Your task to perform on an android device: Open CNN.com Image 0: 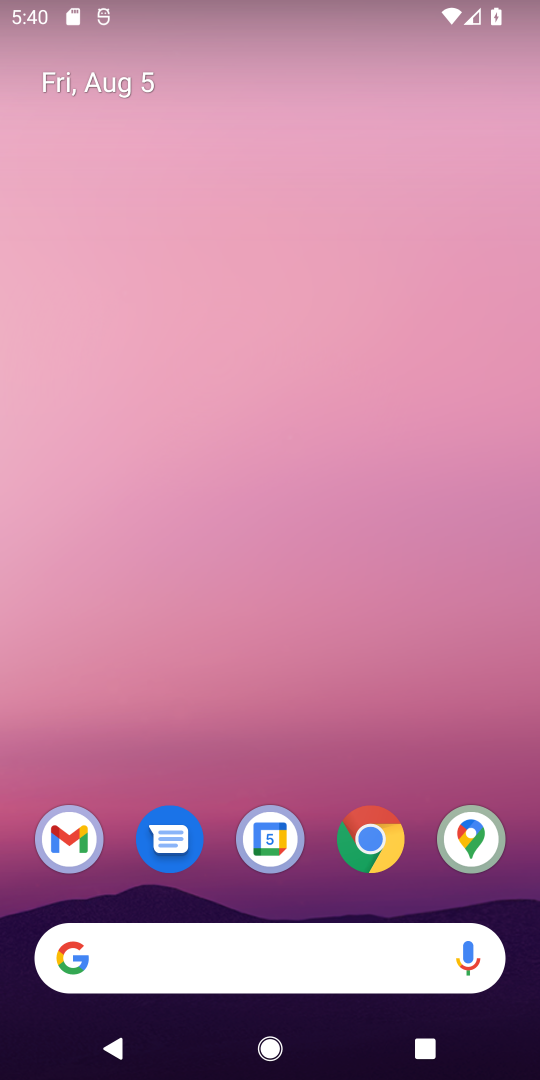
Step 0: click (350, 815)
Your task to perform on an android device: Open CNN.com Image 1: 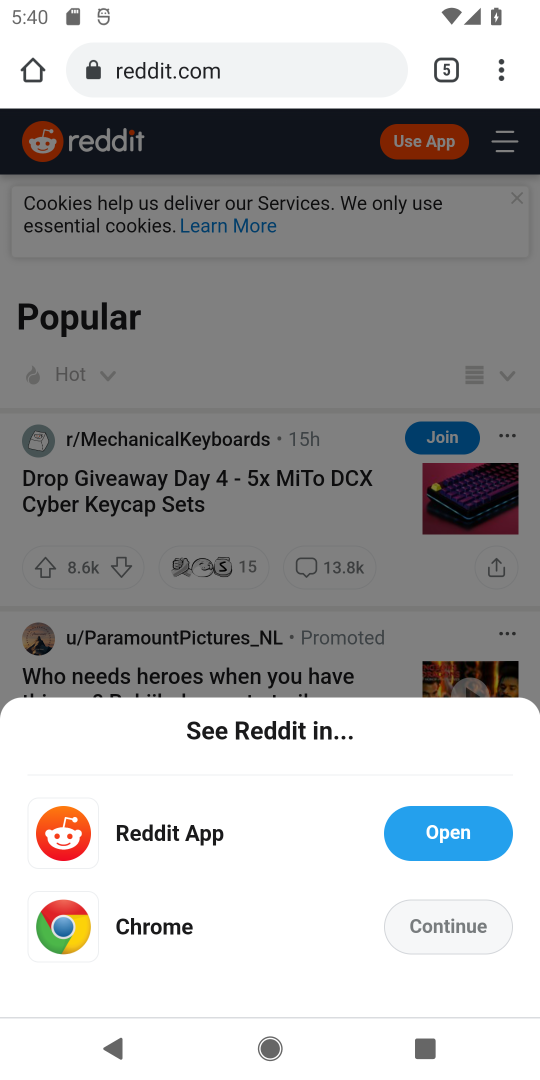
Step 1: click (443, 72)
Your task to perform on an android device: Open CNN.com Image 2: 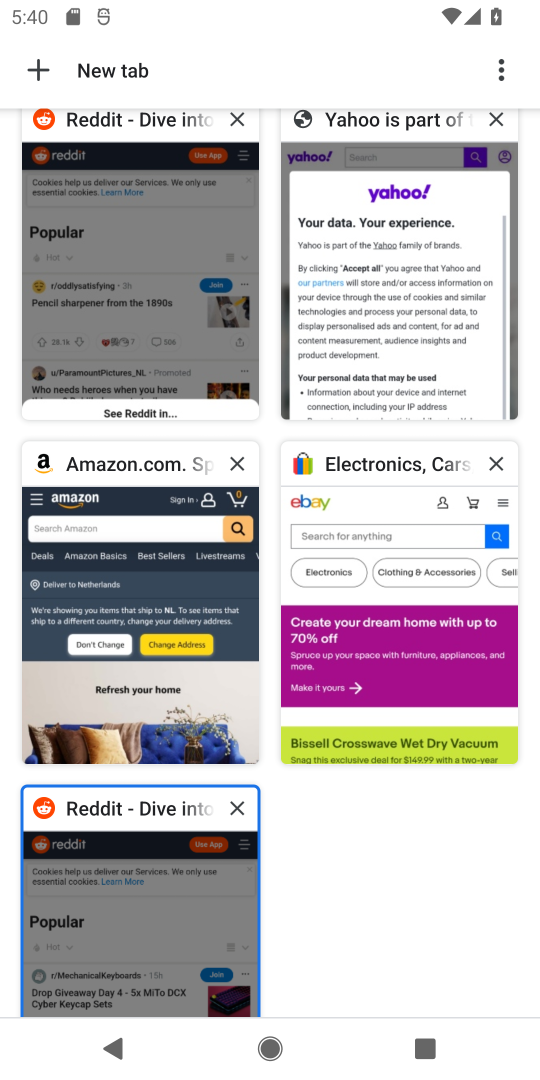
Step 2: click (33, 67)
Your task to perform on an android device: Open CNN.com Image 3: 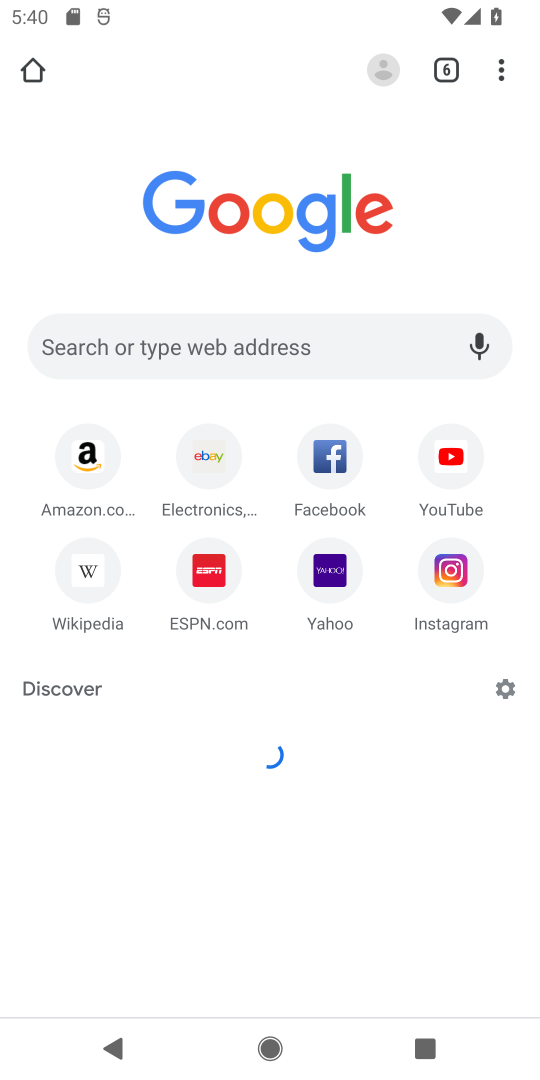
Step 3: click (212, 337)
Your task to perform on an android device: Open CNN.com Image 4: 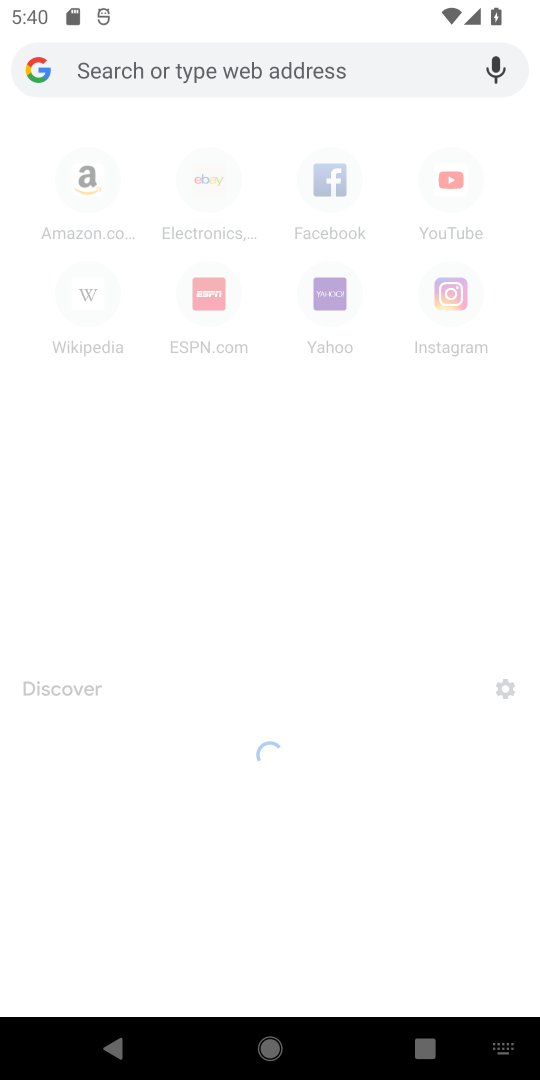
Step 4: type "CNN.com"
Your task to perform on an android device: Open CNN.com Image 5: 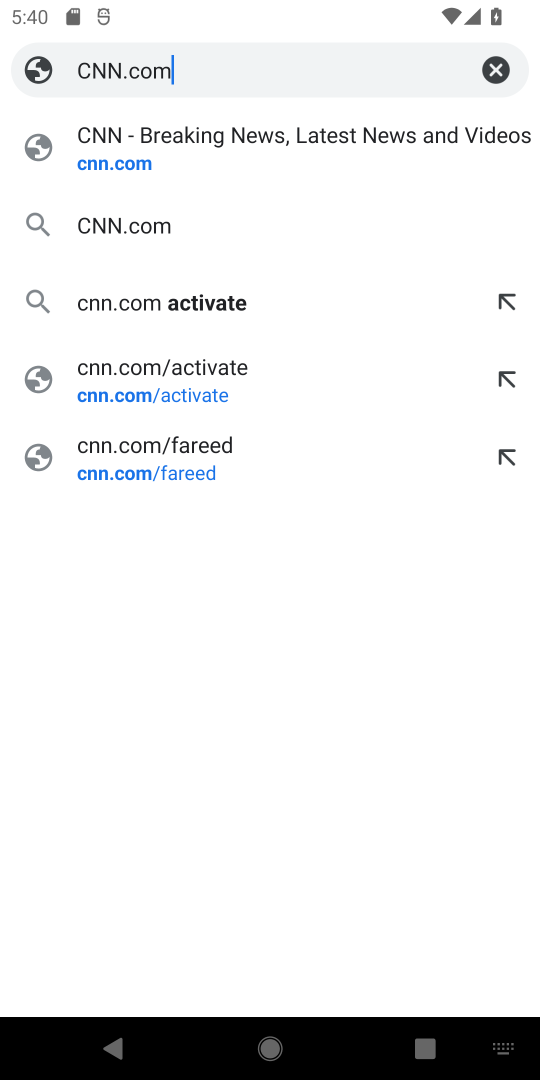
Step 5: click (234, 137)
Your task to perform on an android device: Open CNN.com Image 6: 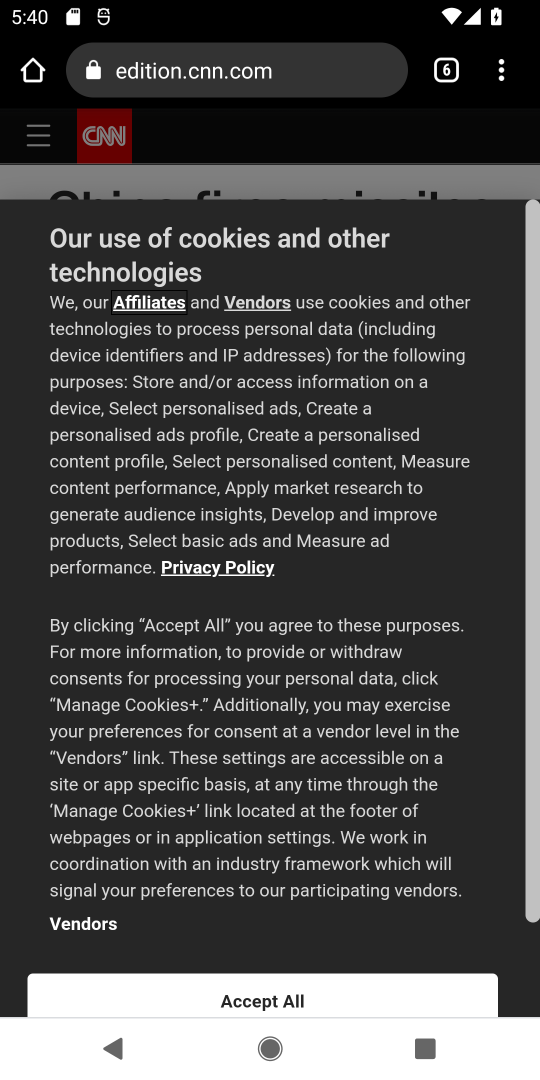
Step 6: task complete